Your task to perform on an android device: open wifi settings Image 0: 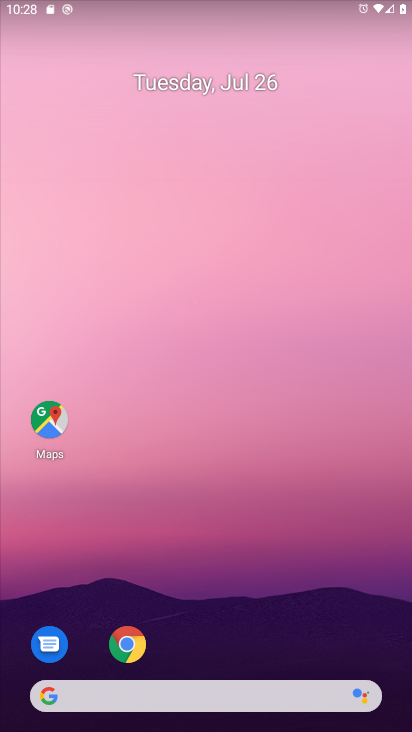
Step 0: drag from (208, 636) to (313, 101)
Your task to perform on an android device: open wifi settings Image 1: 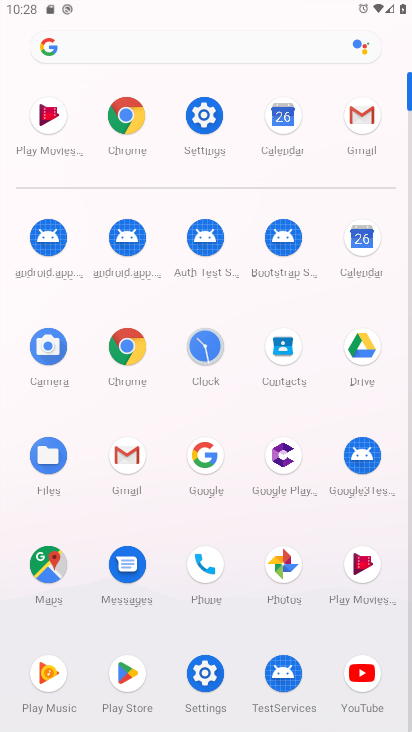
Step 1: click (202, 661)
Your task to perform on an android device: open wifi settings Image 2: 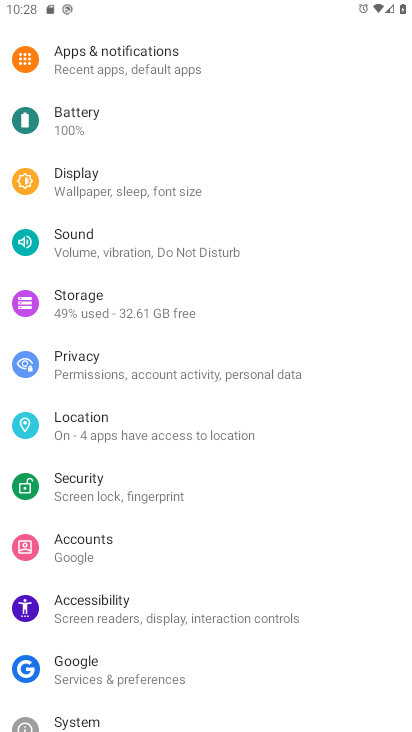
Step 2: drag from (137, 137) to (138, 507)
Your task to perform on an android device: open wifi settings Image 3: 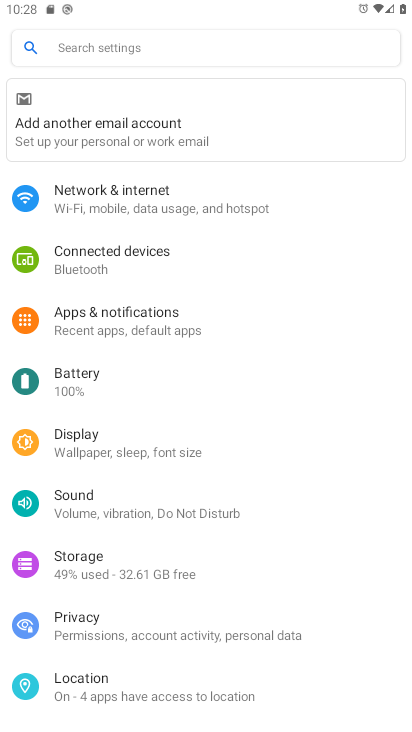
Step 3: click (140, 197)
Your task to perform on an android device: open wifi settings Image 4: 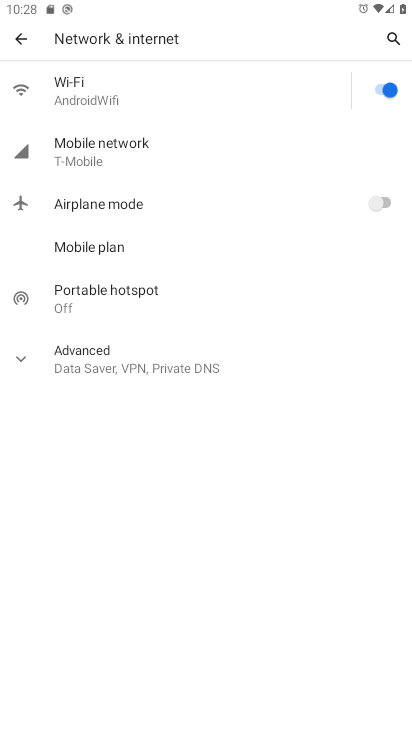
Step 4: click (101, 91)
Your task to perform on an android device: open wifi settings Image 5: 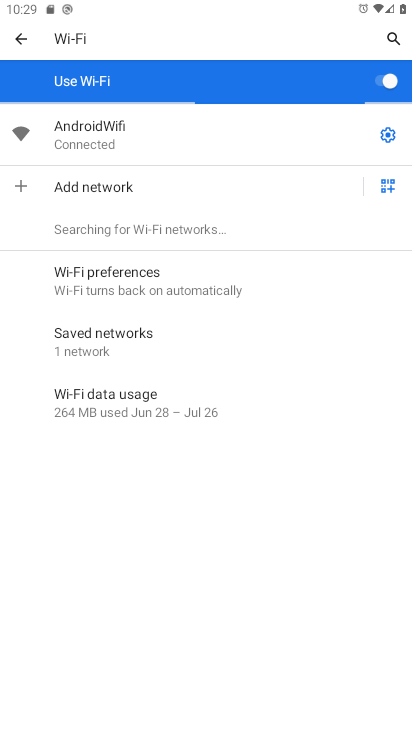
Step 5: task complete